Your task to perform on an android device: Is it going to rain tomorrow? Image 0: 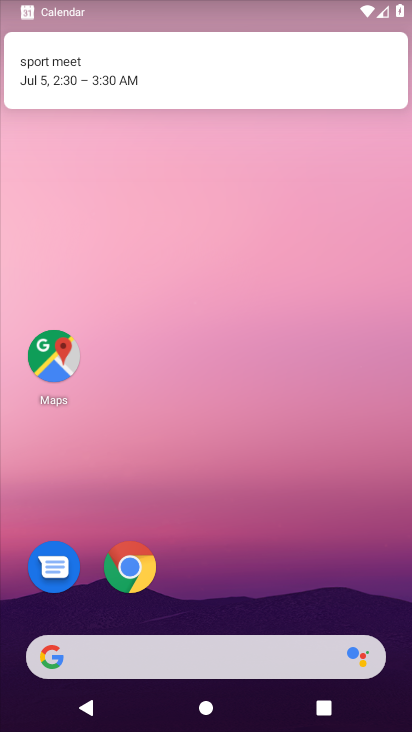
Step 0: drag from (194, 573) to (184, 149)
Your task to perform on an android device: Is it going to rain tomorrow? Image 1: 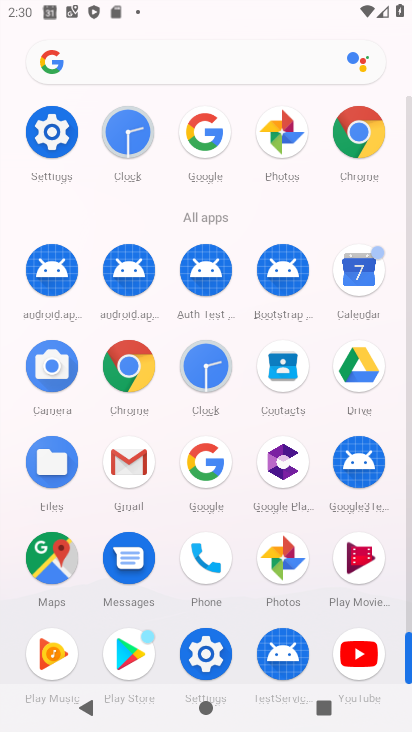
Step 1: click (207, 151)
Your task to perform on an android device: Is it going to rain tomorrow? Image 2: 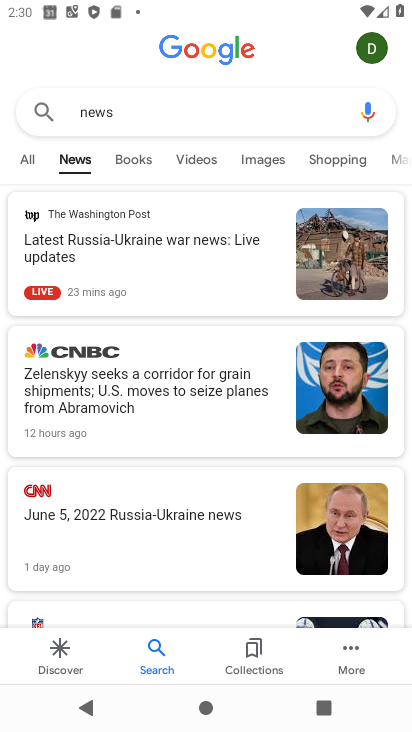
Step 2: click (161, 116)
Your task to perform on an android device: Is it going to rain tomorrow? Image 3: 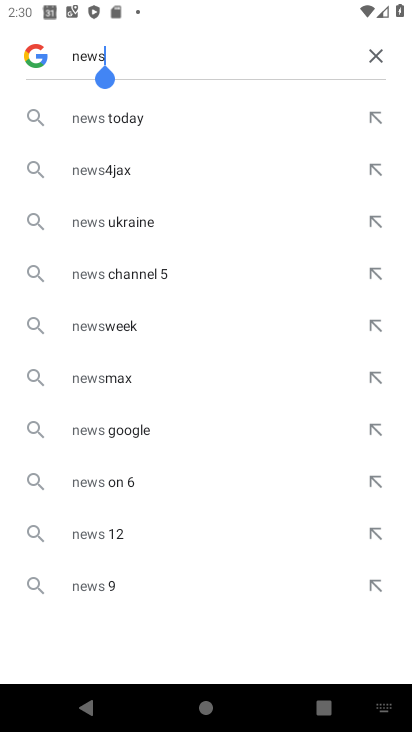
Step 3: click (366, 53)
Your task to perform on an android device: Is it going to rain tomorrow? Image 4: 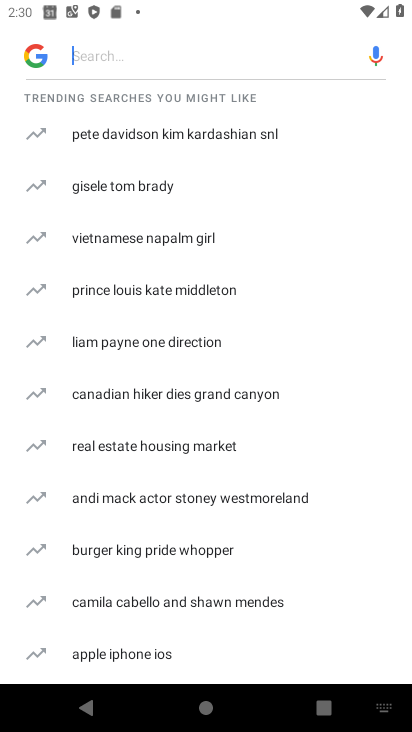
Step 4: click (166, 43)
Your task to perform on an android device: Is it going to rain tomorrow? Image 5: 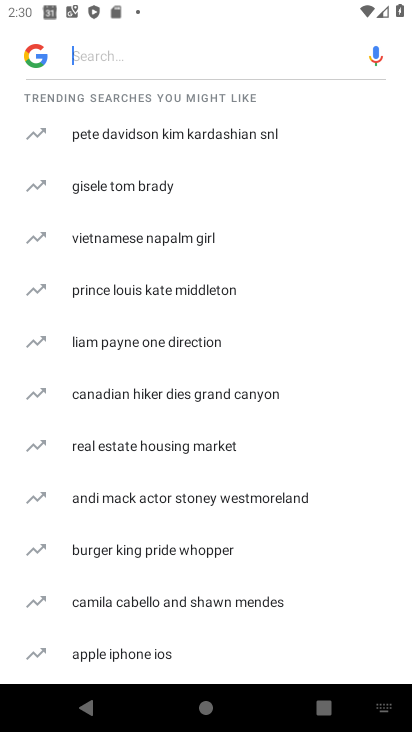
Step 5: type "weather"
Your task to perform on an android device: Is it going to rain tomorrow? Image 6: 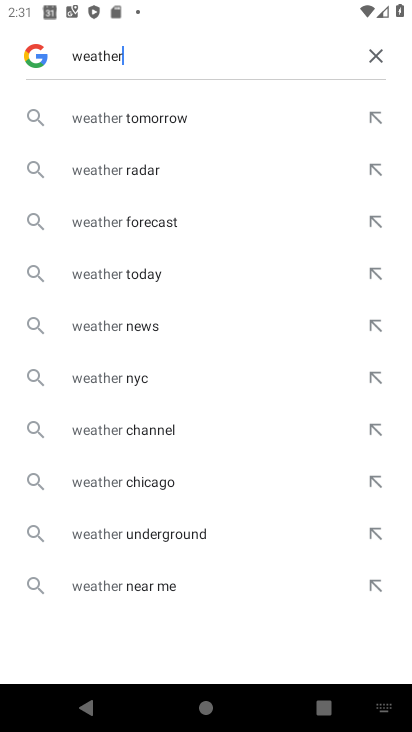
Step 6: click (132, 114)
Your task to perform on an android device: Is it going to rain tomorrow? Image 7: 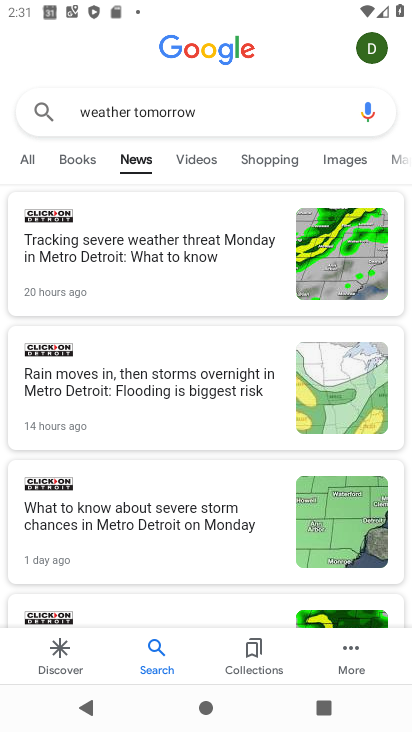
Step 7: click (36, 156)
Your task to perform on an android device: Is it going to rain tomorrow? Image 8: 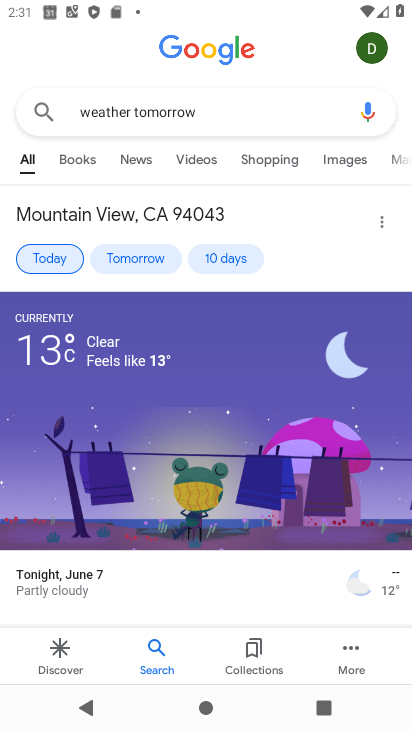
Step 8: click (151, 251)
Your task to perform on an android device: Is it going to rain tomorrow? Image 9: 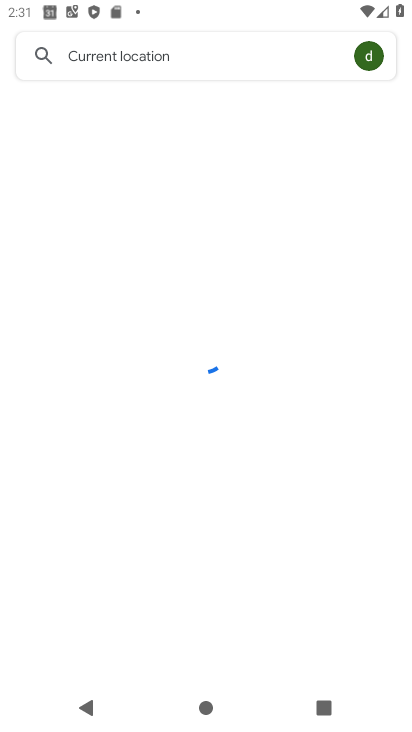
Step 9: click (151, 251)
Your task to perform on an android device: Is it going to rain tomorrow? Image 10: 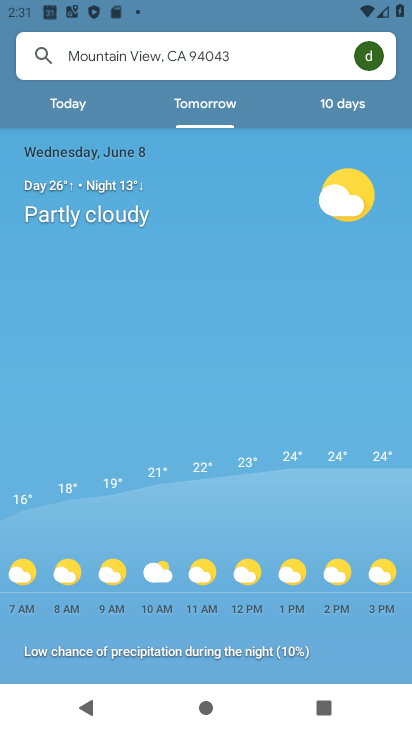
Step 10: task complete